Your task to perform on an android device: Open the web browser Image 0: 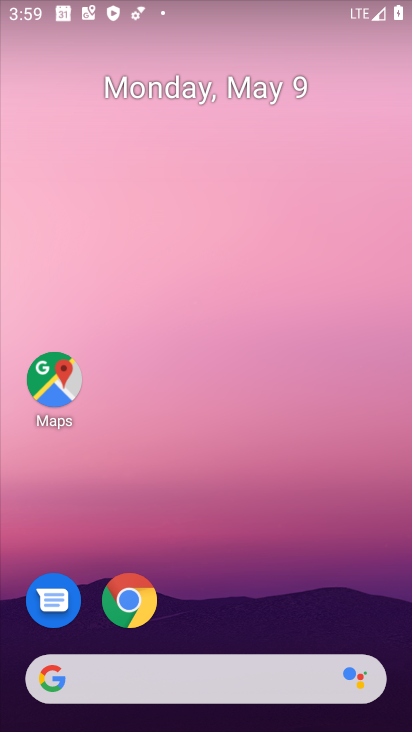
Step 0: drag from (182, 663) to (200, 77)
Your task to perform on an android device: Open the web browser Image 1: 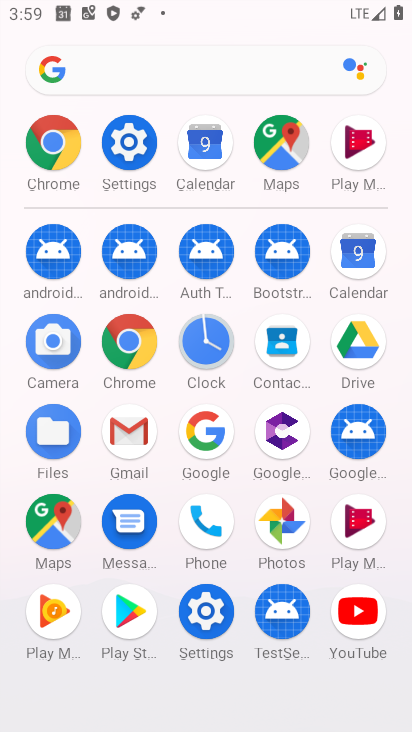
Step 1: click (120, 356)
Your task to perform on an android device: Open the web browser Image 2: 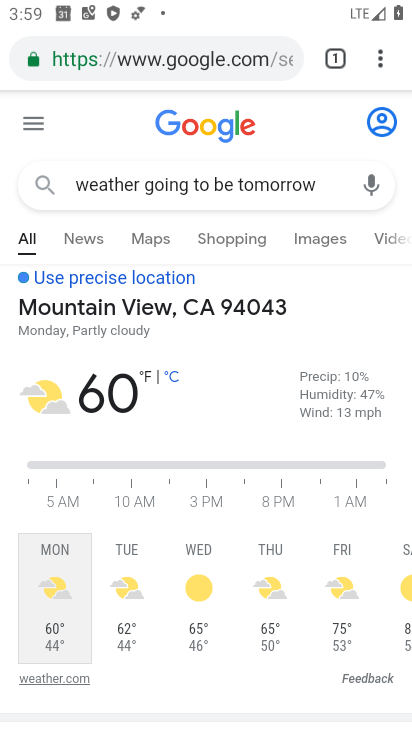
Step 2: click (375, 66)
Your task to perform on an android device: Open the web browser Image 3: 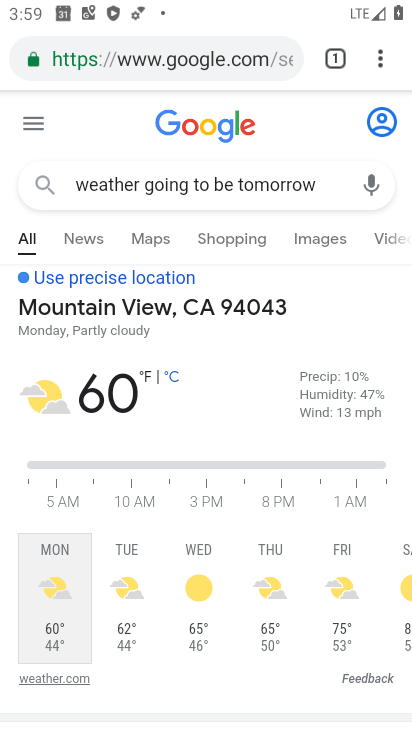
Step 3: task complete